Your task to perform on an android device: allow cookies in the chrome app Image 0: 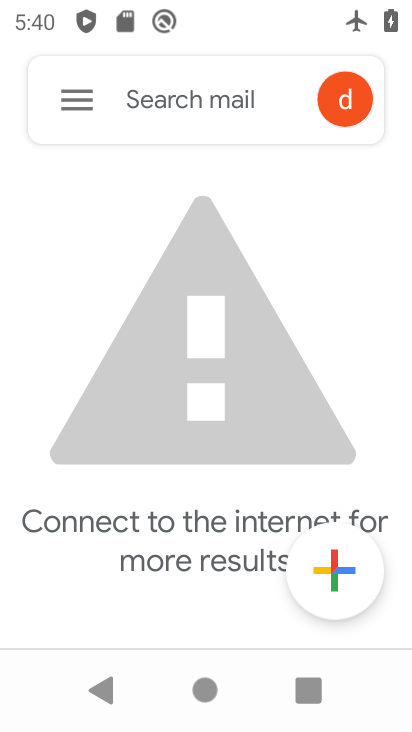
Step 0: press home button
Your task to perform on an android device: allow cookies in the chrome app Image 1: 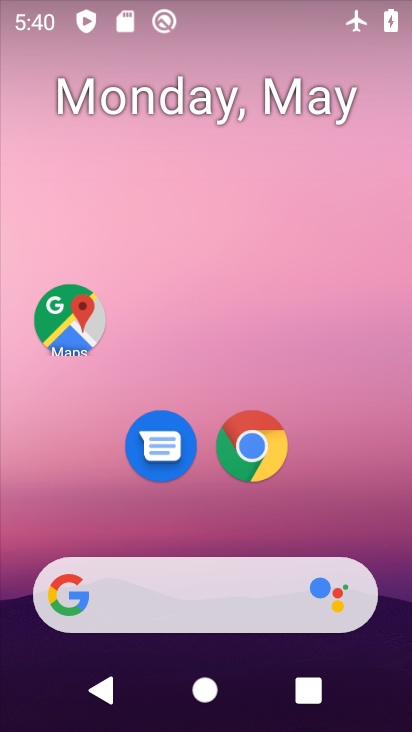
Step 1: click (263, 446)
Your task to perform on an android device: allow cookies in the chrome app Image 2: 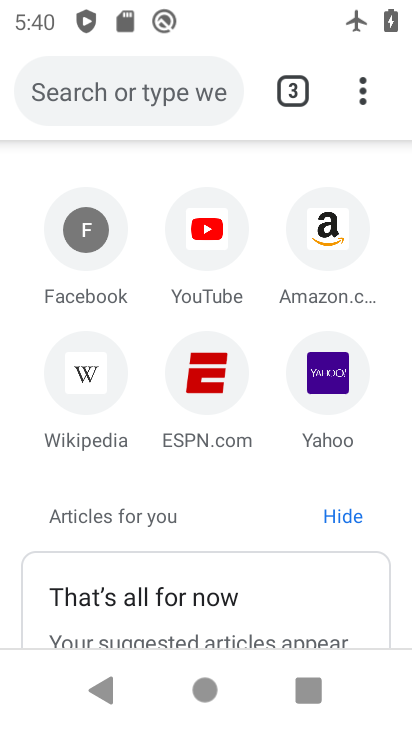
Step 2: click (364, 96)
Your task to perform on an android device: allow cookies in the chrome app Image 3: 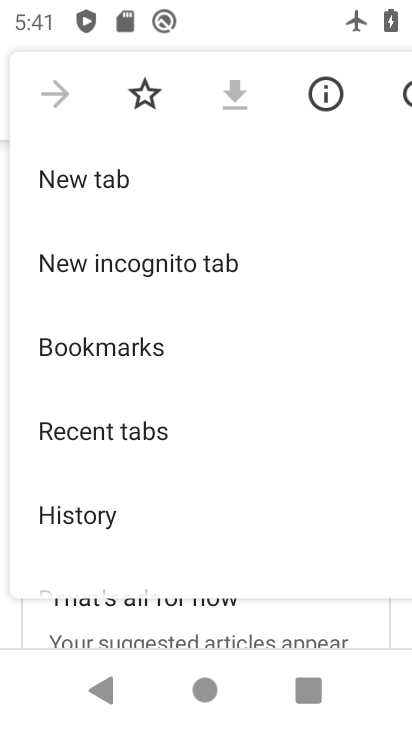
Step 3: drag from (211, 436) to (201, 150)
Your task to perform on an android device: allow cookies in the chrome app Image 4: 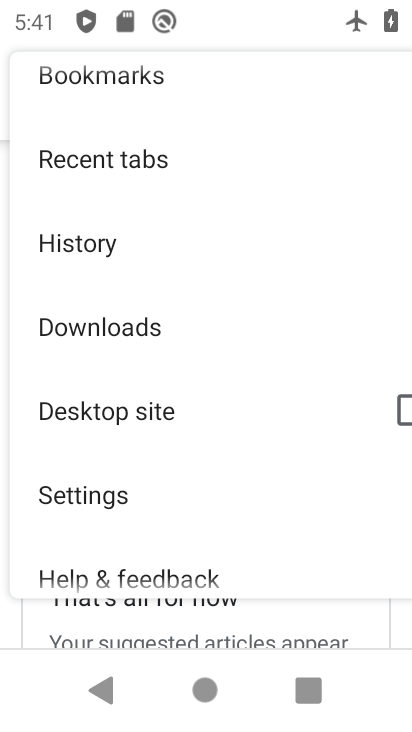
Step 4: click (124, 491)
Your task to perform on an android device: allow cookies in the chrome app Image 5: 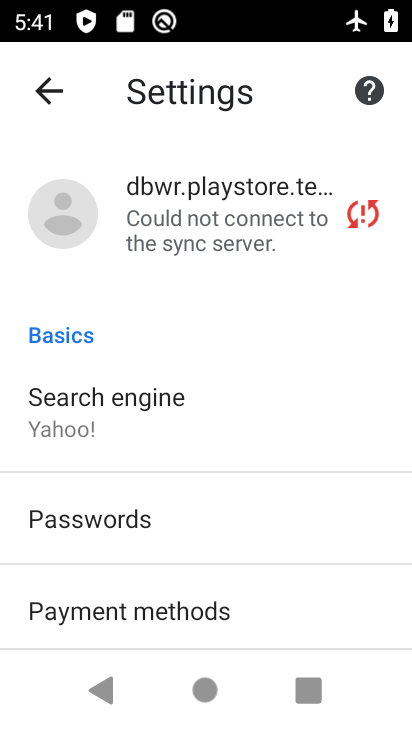
Step 5: drag from (245, 493) to (218, 287)
Your task to perform on an android device: allow cookies in the chrome app Image 6: 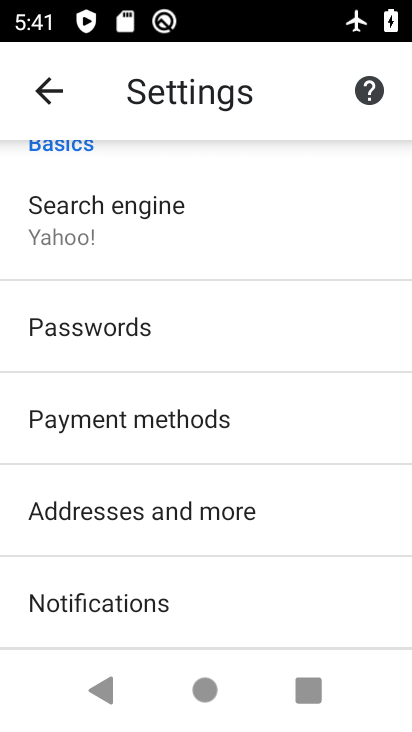
Step 6: drag from (207, 544) to (182, 252)
Your task to perform on an android device: allow cookies in the chrome app Image 7: 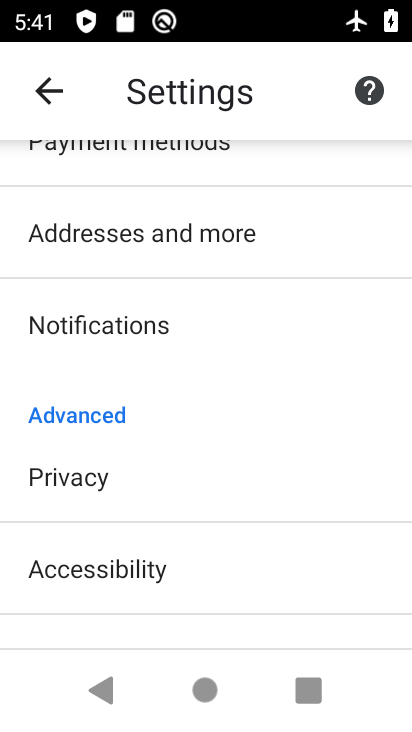
Step 7: drag from (169, 547) to (184, 371)
Your task to perform on an android device: allow cookies in the chrome app Image 8: 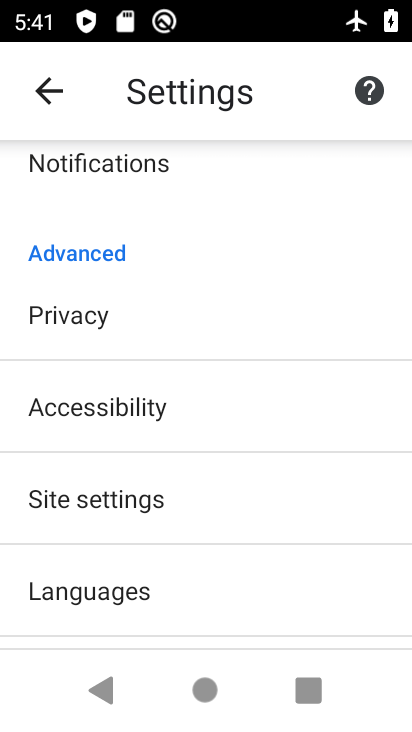
Step 8: click (125, 497)
Your task to perform on an android device: allow cookies in the chrome app Image 9: 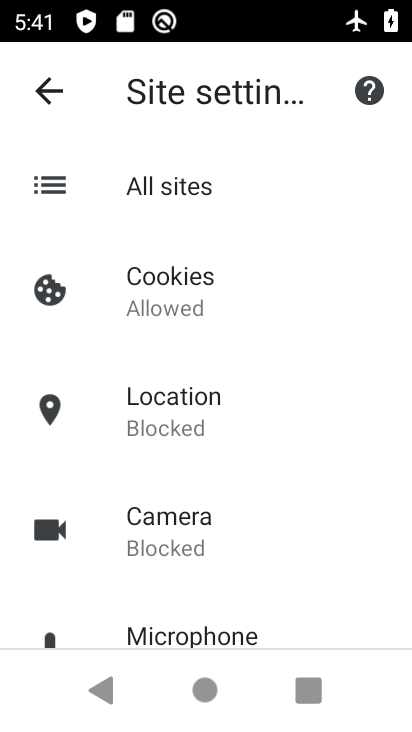
Step 9: click (147, 298)
Your task to perform on an android device: allow cookies in the chrome app Image 10: 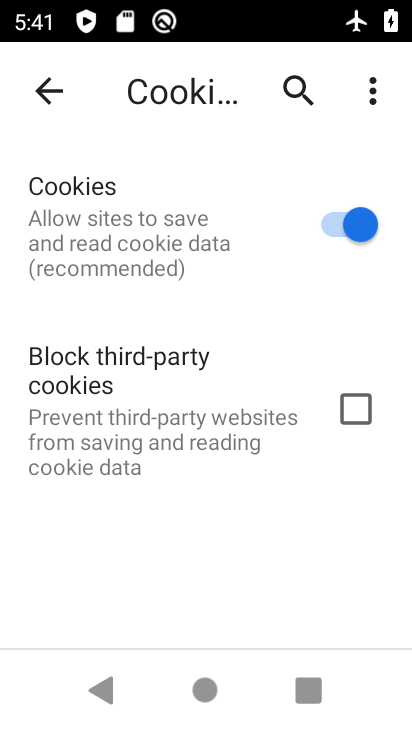
Step 10: task complete